Your task to perform on an android device: View the shopping cart on ebay.com. Add logitech g pro to the cart on ebay.com, then select checkout. Image 0: 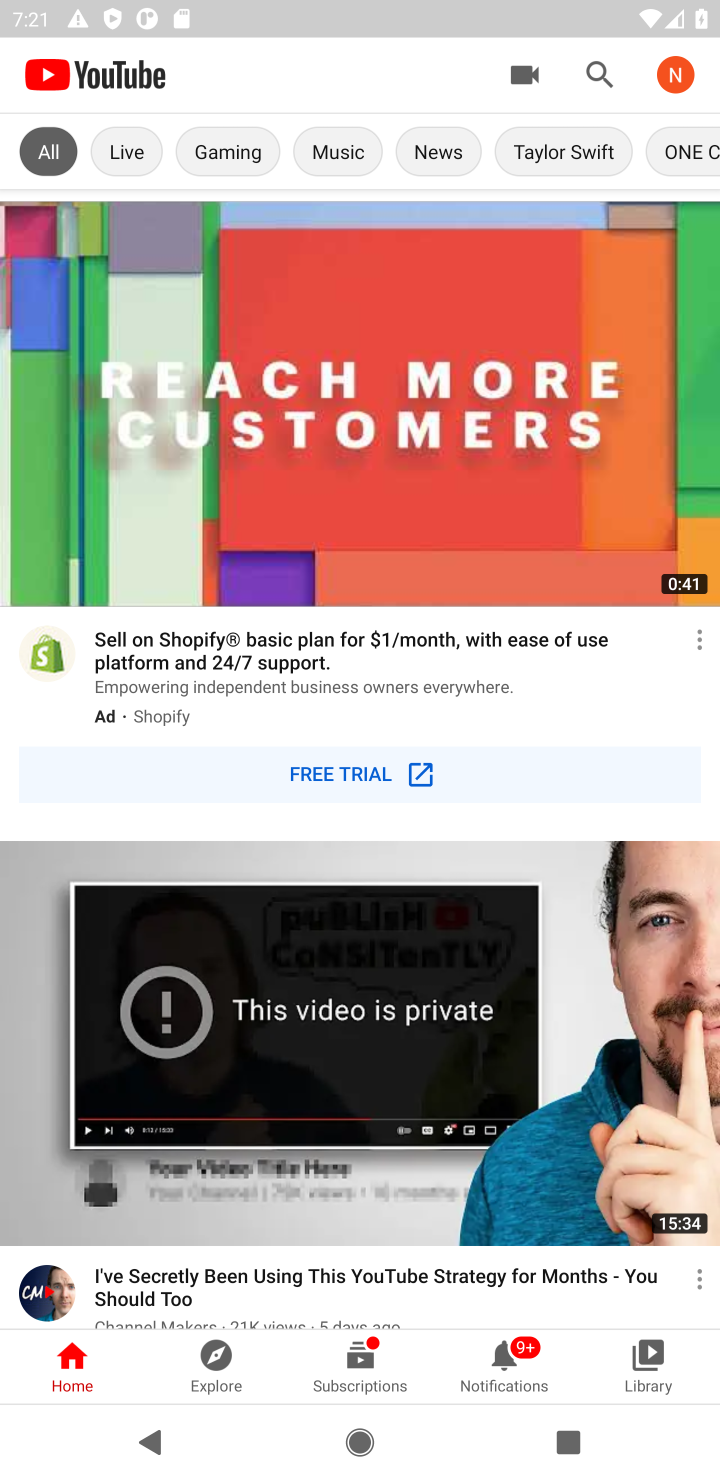
Step 0: press home button
Your task to perform on an android device: View the shopping cart on ebay.com. Add logitech g pro to the cart on ebay.com, then select checkout. Image 1: 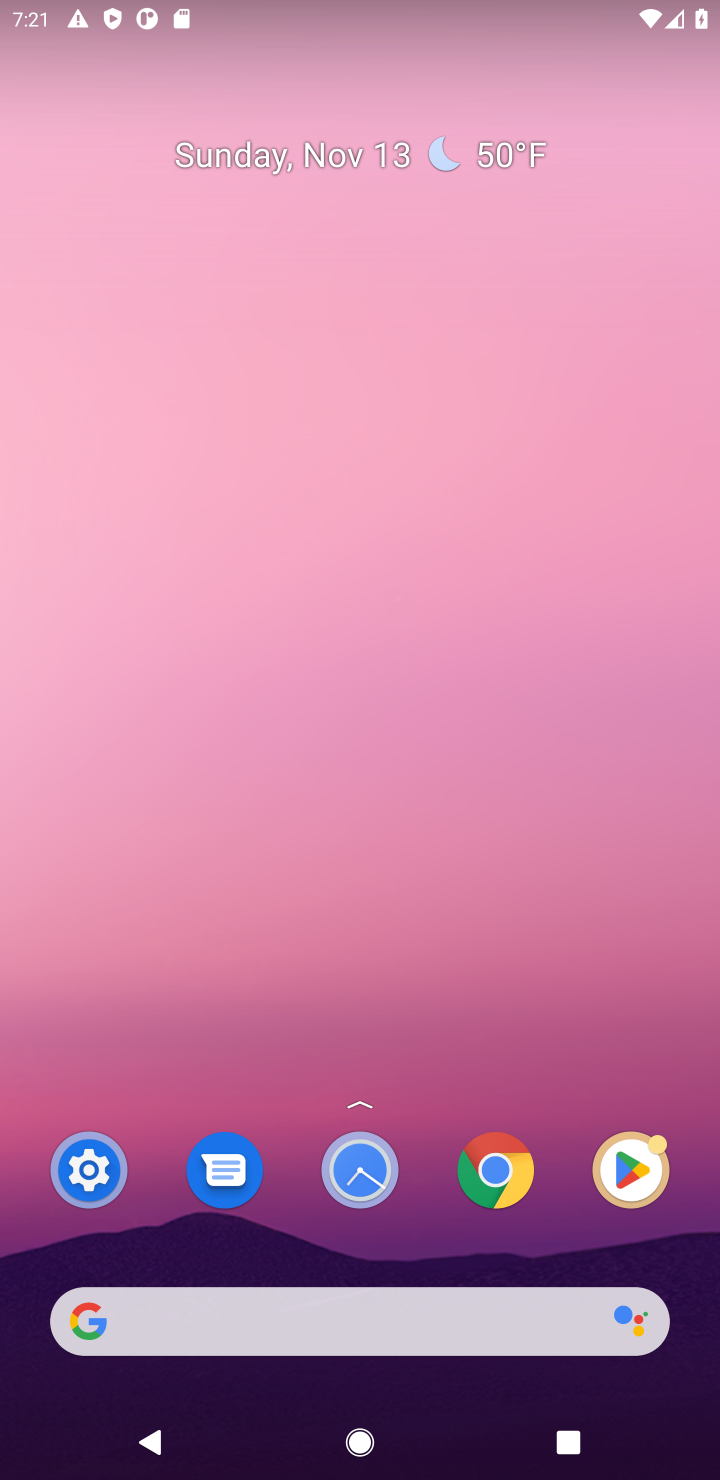
Step 1: click (287, 1320)
Your task to perform on an android device: View the shopping cart on ebay.com. Add logitech g pro to the cart on ebay.com, then select checkout. Image 2: 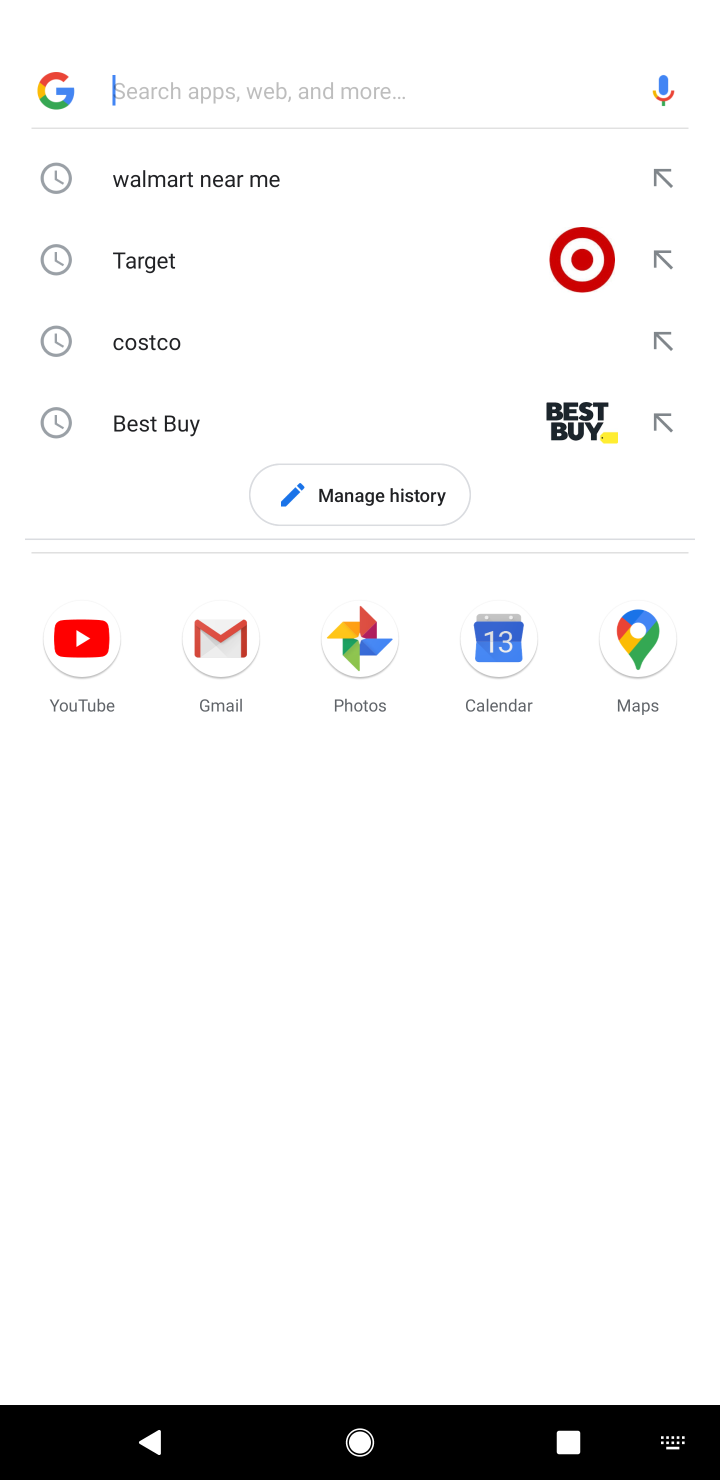
Step 2: type "ebay.com"
Your task to perform on an android device: View the shopping cart on ebay.com. Add logitech g pro to the cart on ebay.com, then select checkout. Image 3: 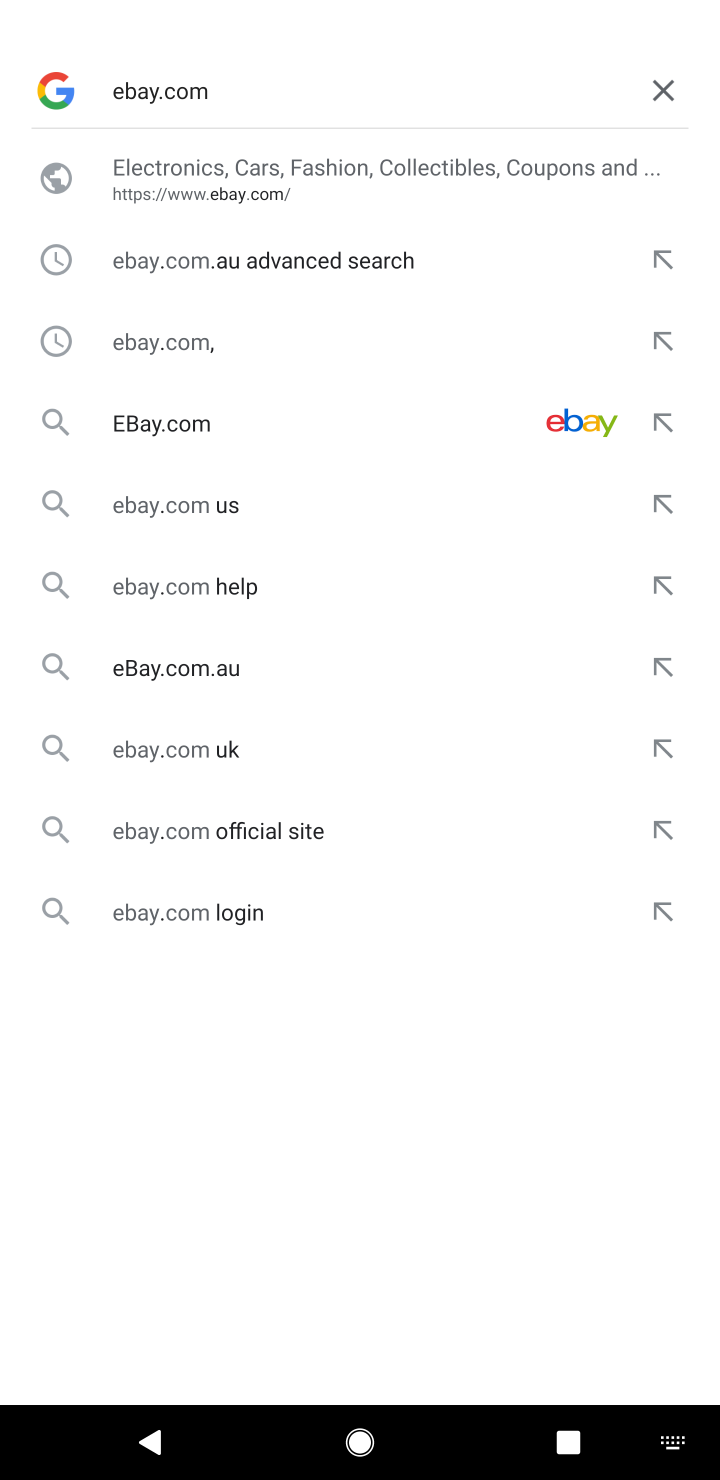
Step 3: click (282, 165)
Your task to perform on an android device: View the shopping cart on ebay.com. Add logitech g pro to the cart on ebay.com, then select checkout. Image 4: 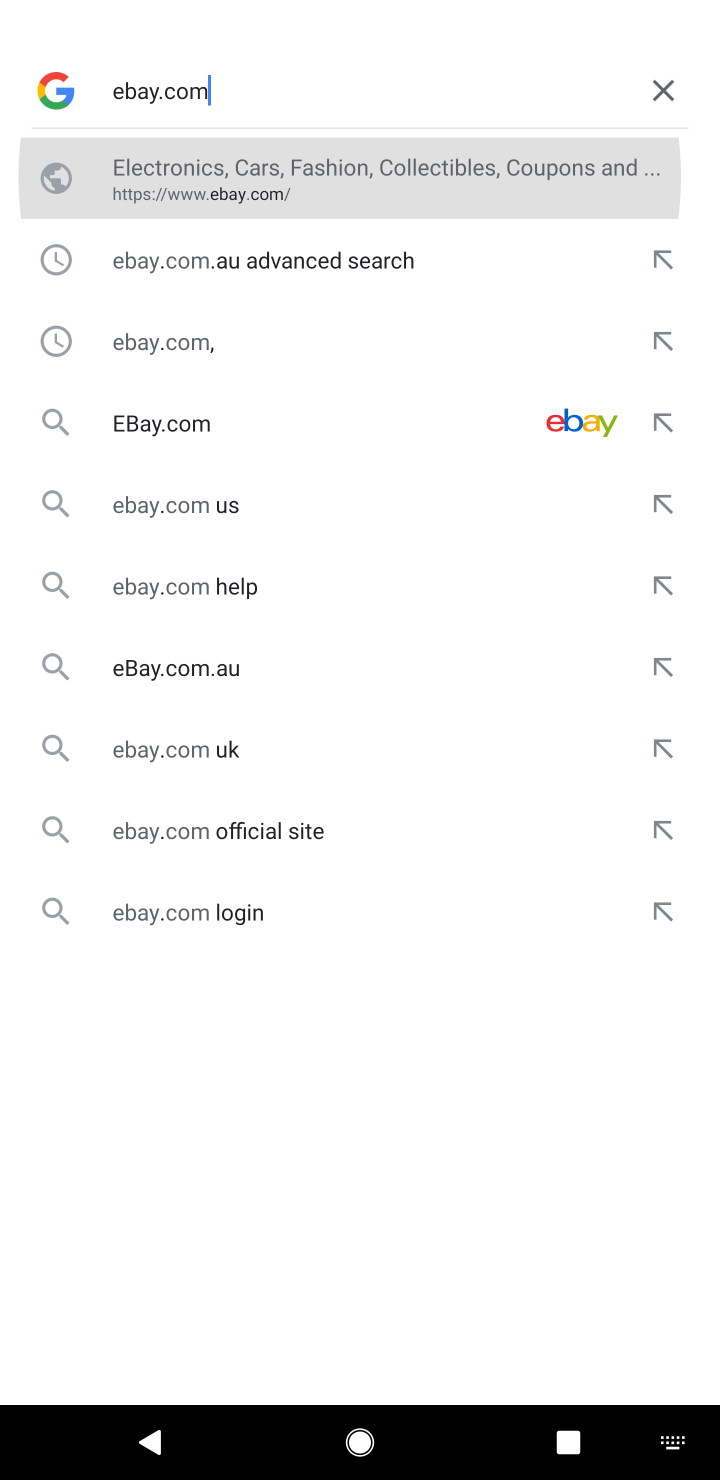
Step 4: click (282, 165)
Your task to perform on an android device: View the shopping cart on ebay.com. Add logitech g pro to the cart on ebay.com, then select checkout. Image 5: 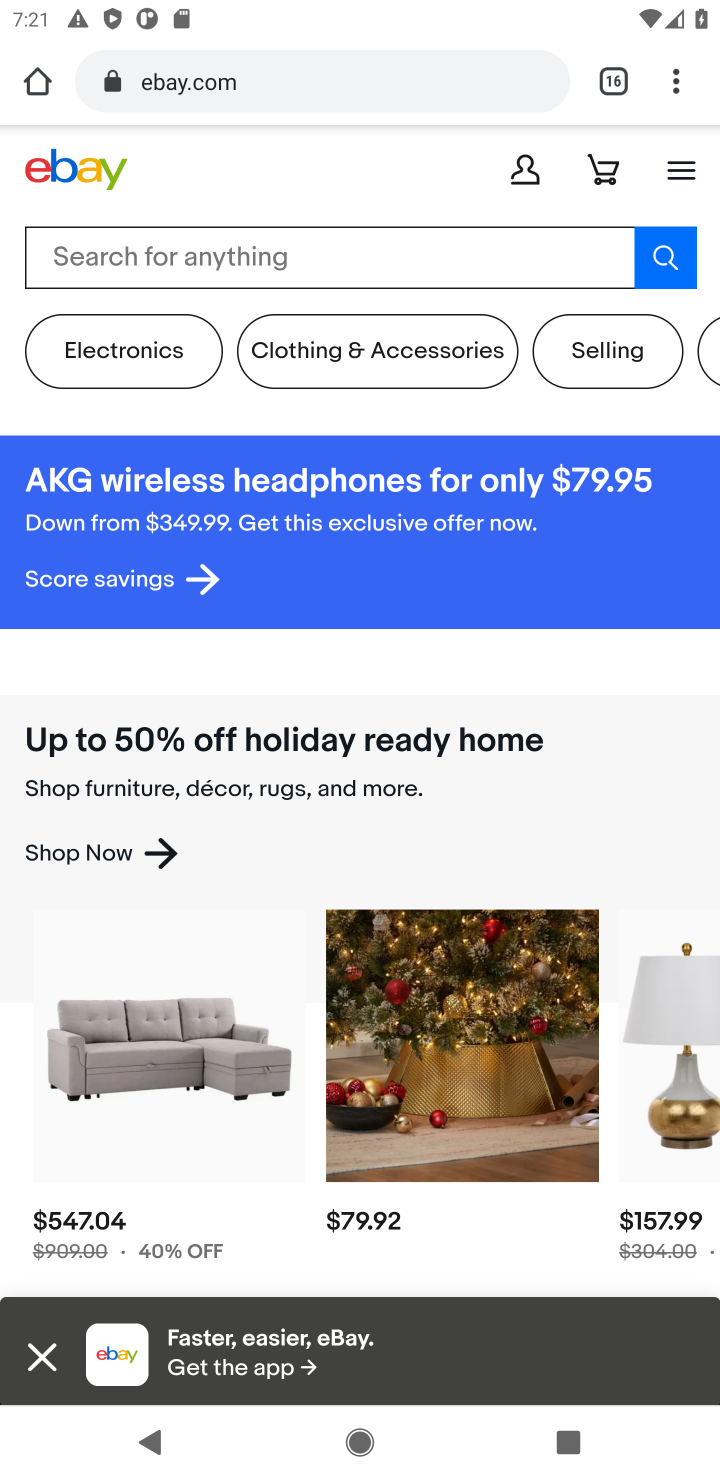
Step 5: click (301, 288)
Your task to perform on an android device: View the shopping cart on ebay.com. Add logitech g pro to the cart on ebay.com, then select checkout. Image 6: 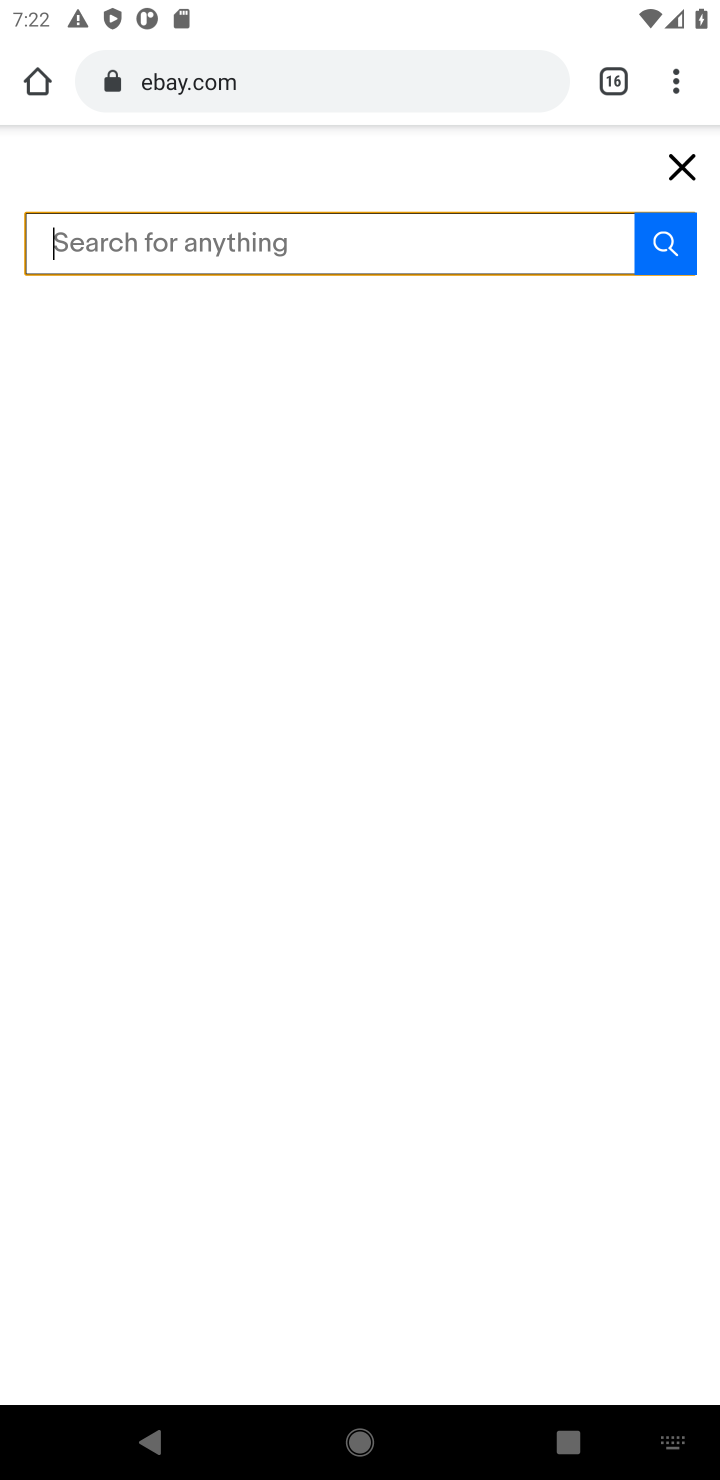
Step 6: type "logitech g pro"
Your task to perform on an android device: View the shopping cart on ebay.com. Add logitech g pro to the cart on ebay.com, then select checkout. Image 7: 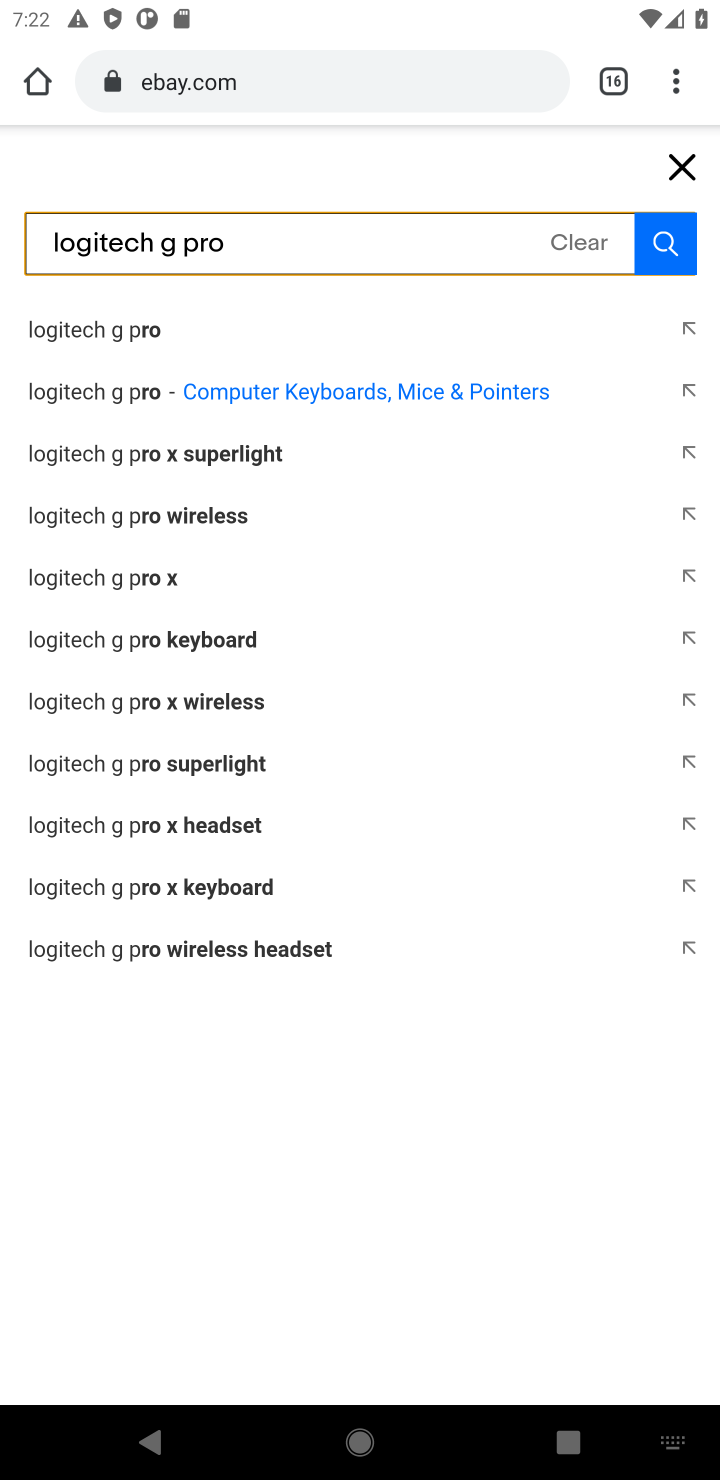
Step 7: click (174, 325)
Your task to perform on an android device: View the shopping cart on ebay.com. Add logitech g pro to the cart on ebay.com, then select checkout. Image 8: 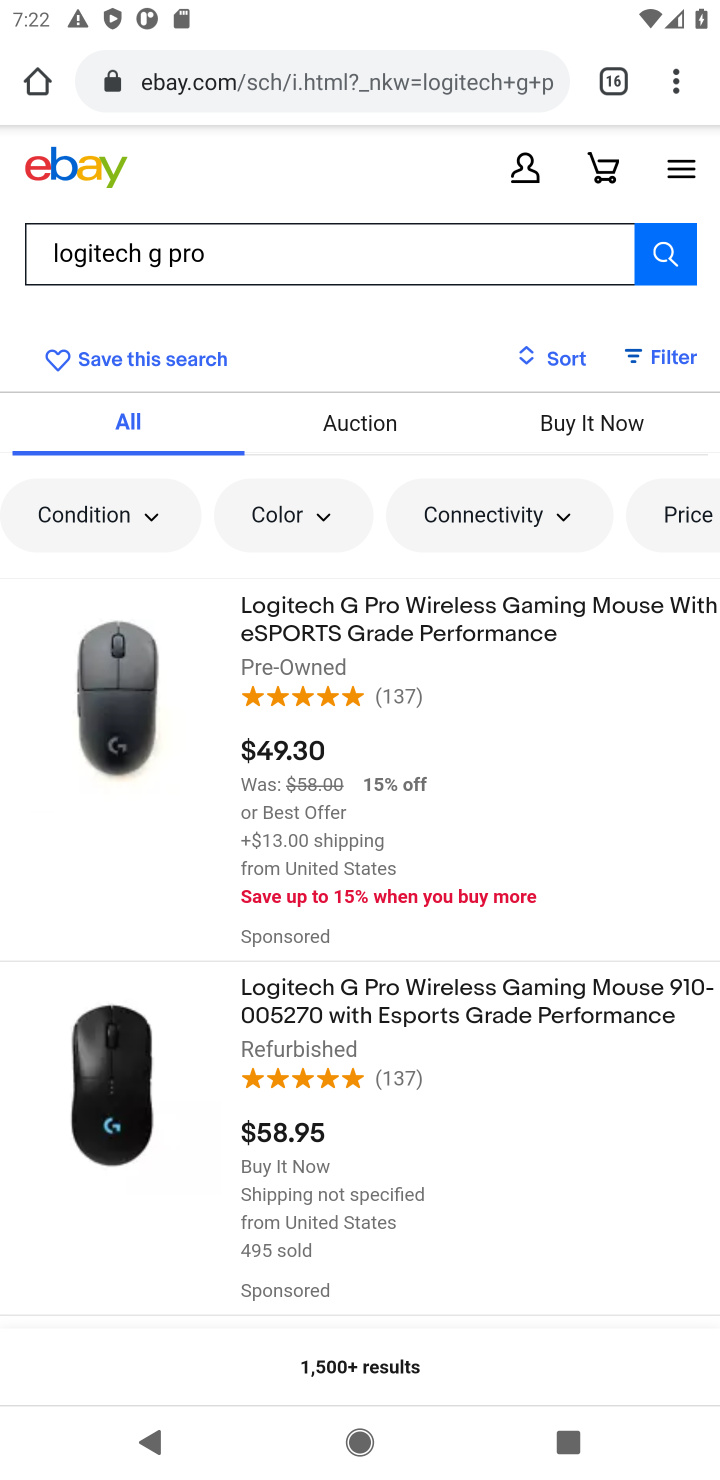
Step 8: click (318, 653)
Your task to perform on an android device: View the shopping cart on ebay.com. Add logitech g pro to the cart on ebay.com, then select checkout. Image 9: 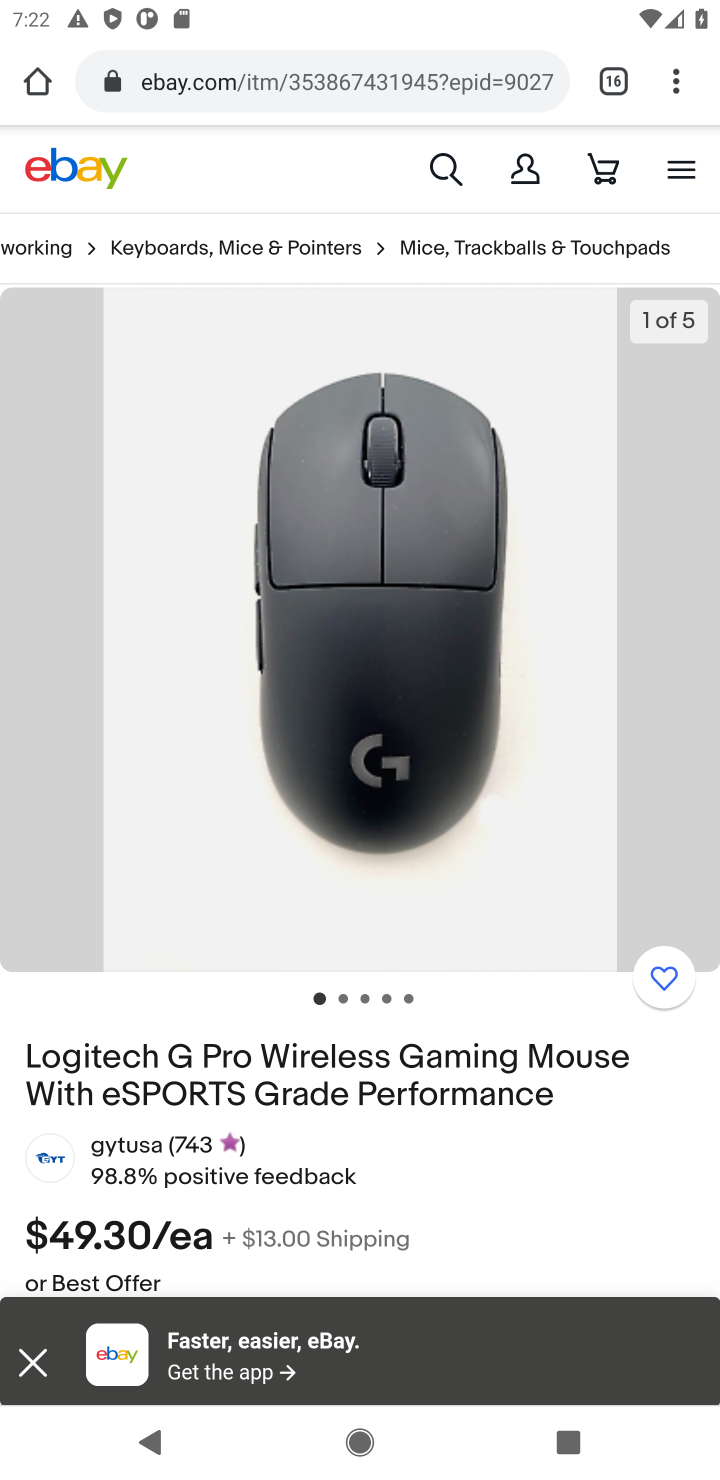
Step 9: task complete